Your task to perform on an android device: Search for the new nike shoes on Target Image 0: 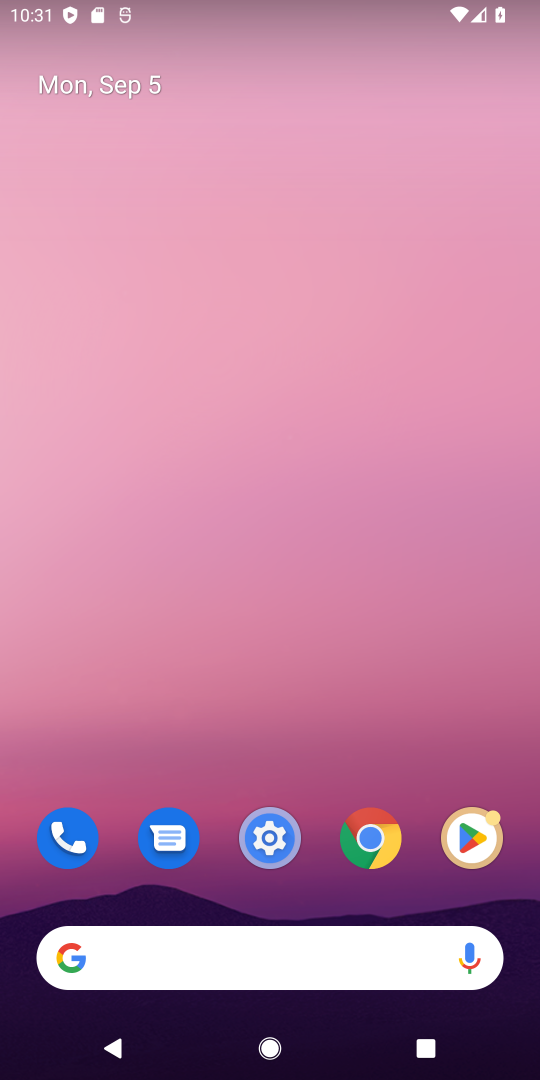
Step 0: click (268, 926)
Your task to perform on an android device: Search for the new nike shoes on Target Image 1: 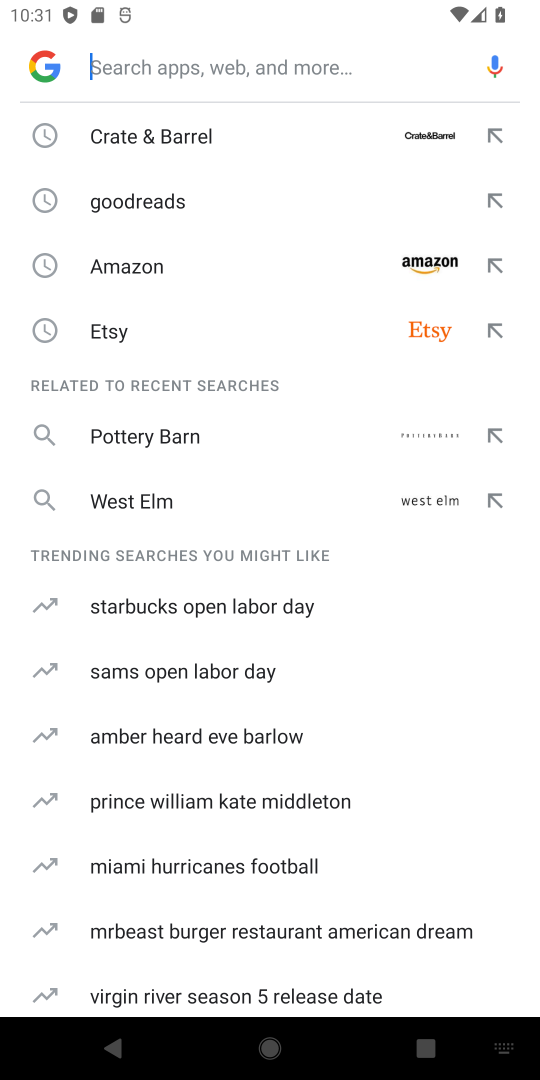
Step 1: type "Target"
Your task to perform on an android device: Search for the new nike shoes on Target Image 2: 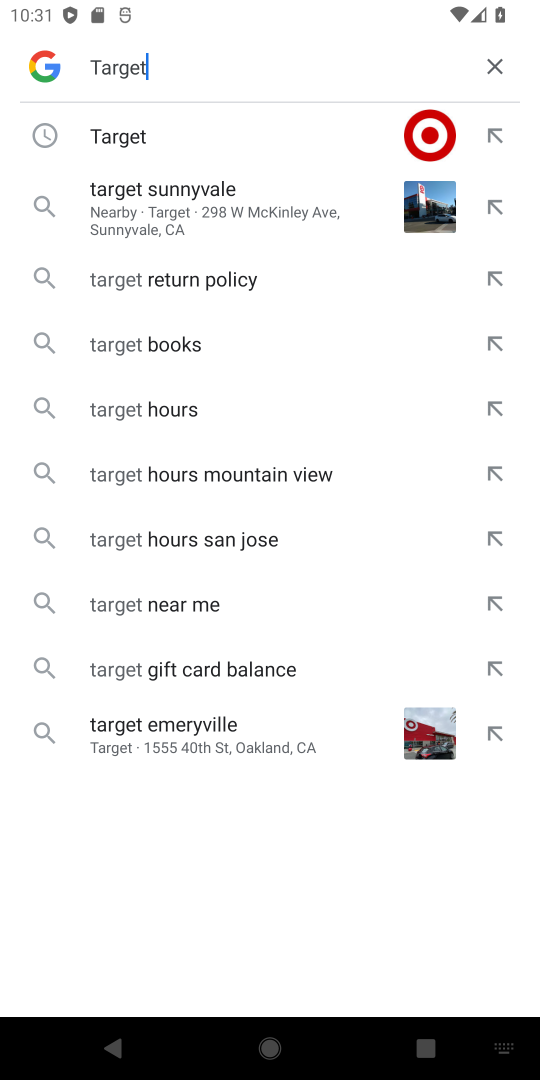
Step 2: click (127, 142)
Your task to perform on an android device: Search for the new nike shoes on Target Image 3: 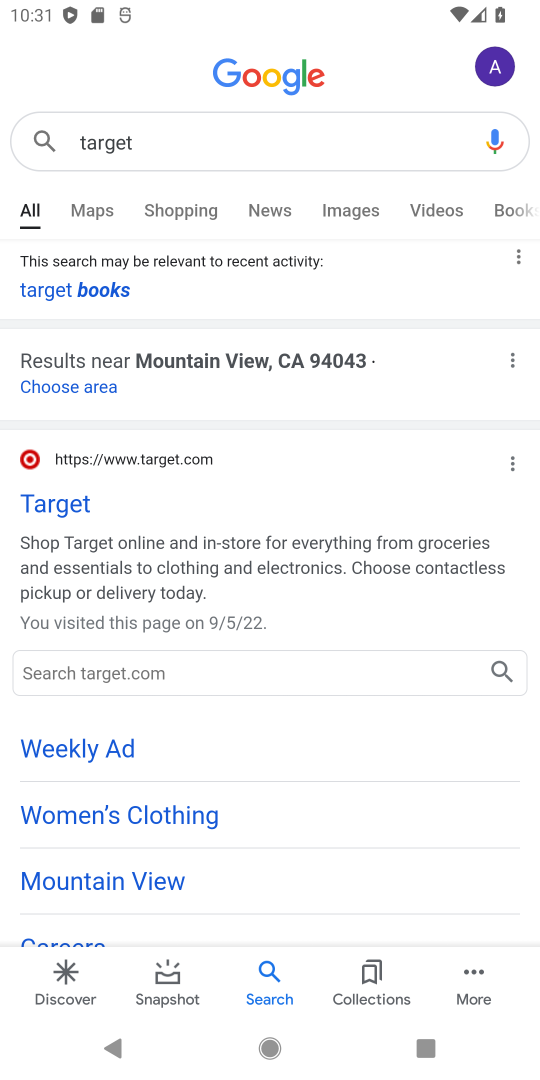
Step 3: click (71, 495)
Your task to perform on an android device: Search for the new nike shoes on Target Image 4: 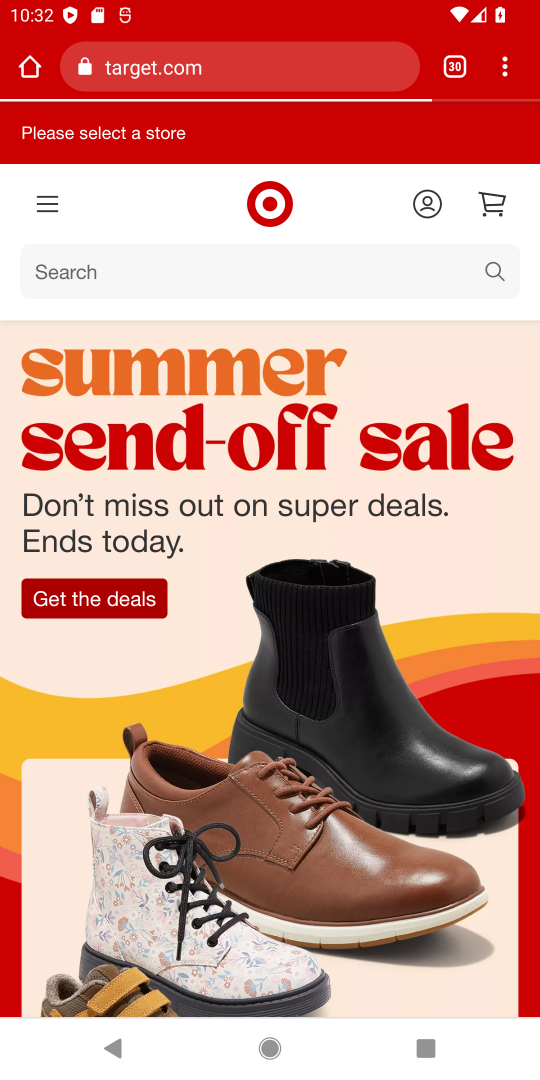
Step 4: click (169, 272)
Your task to perform on an android device: Search for the new nike shoes on Target Image 5: 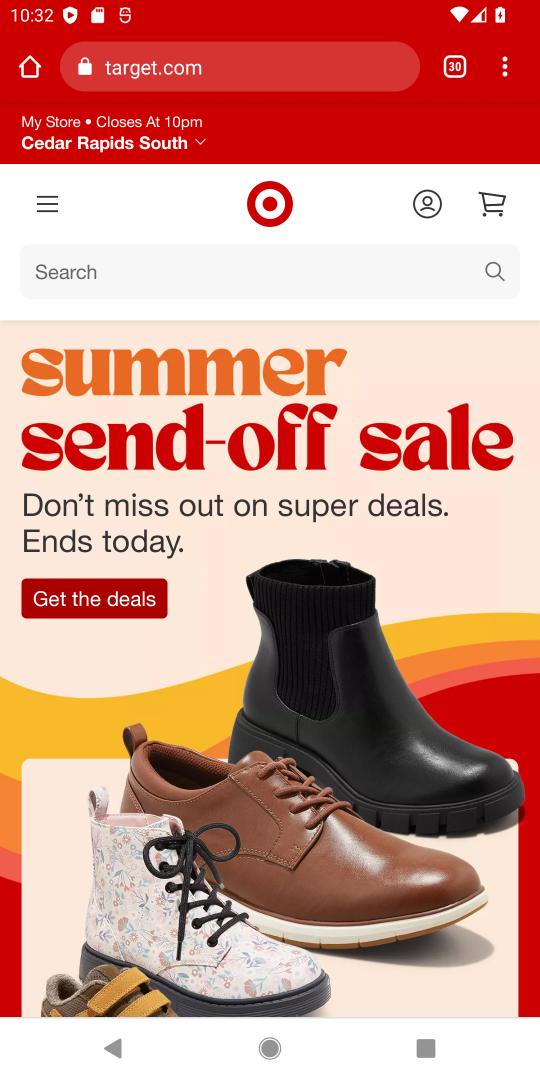
Step 5: click (300, 261)
Your task to perform on an android device: Search for the new nike shoes on Target Image 6: 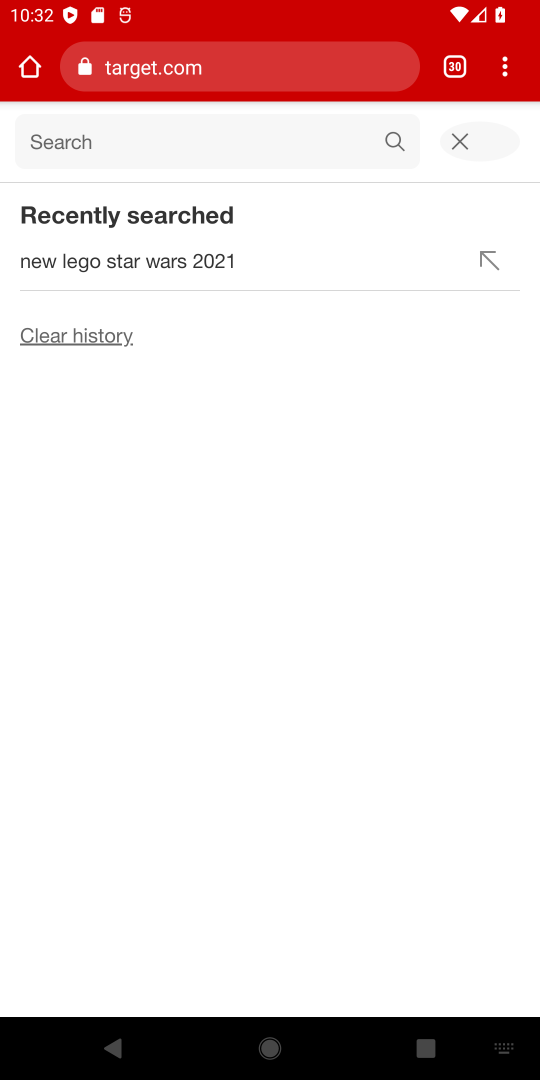
Step 6: type "nike shoes"
Your task to perform on an android device: Search for the new nike shoes on Target Image 7: 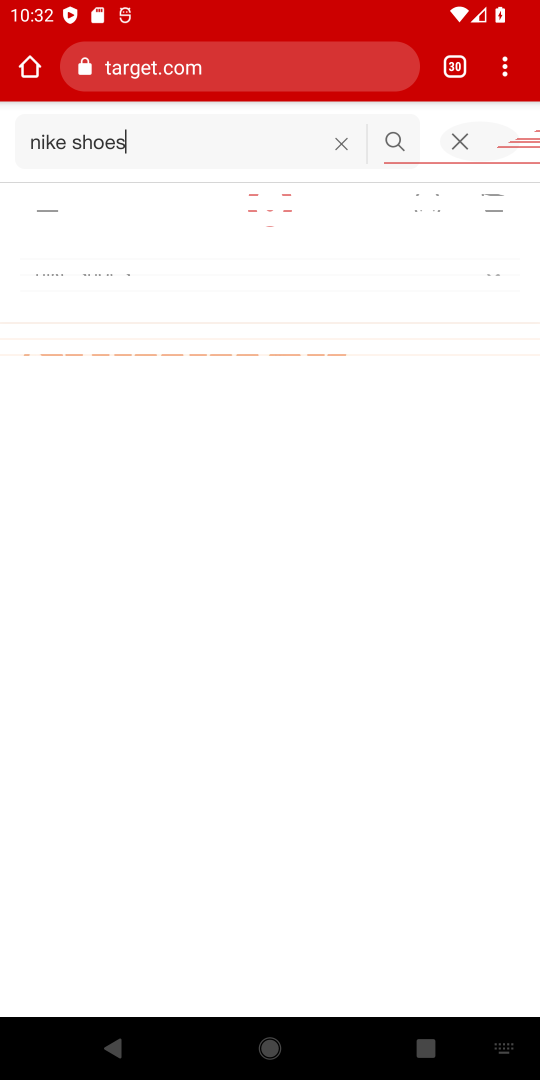
Step 7: click (392, 126)
Your task to perform on an android device: Search for the new nike shoes on Target Image 8: 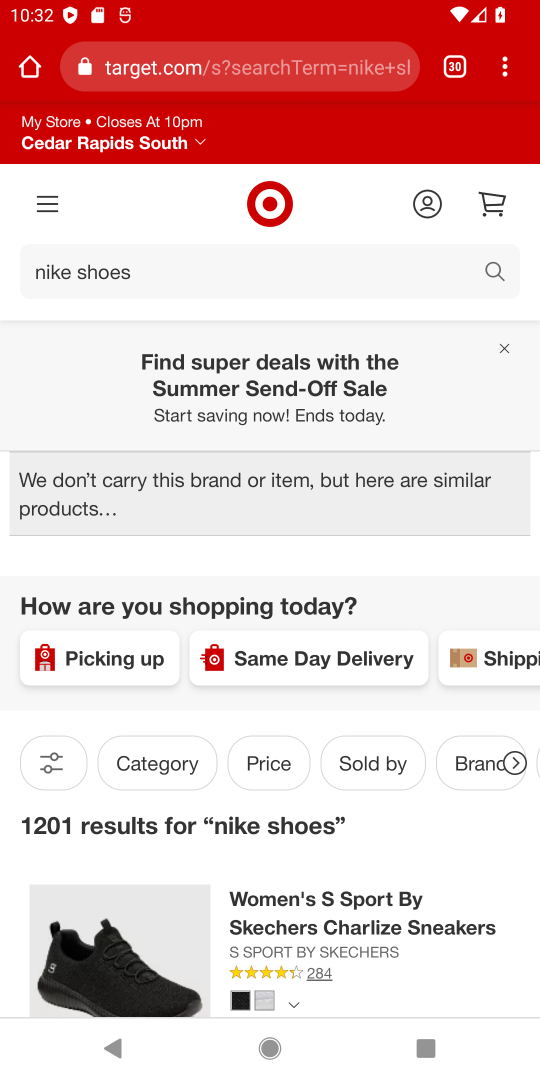
Step 8: task complete